Your task to perform on an android device: Go to ESPN.com Image 0: 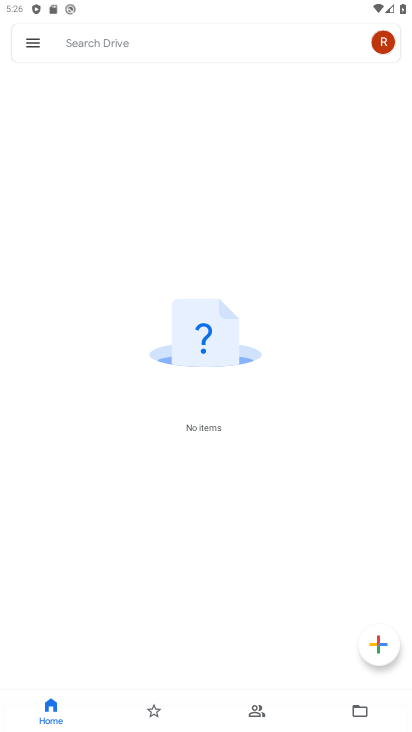
Step 0: press home button
Your task to perform on an android device: Go to ESPN.com Image 1: 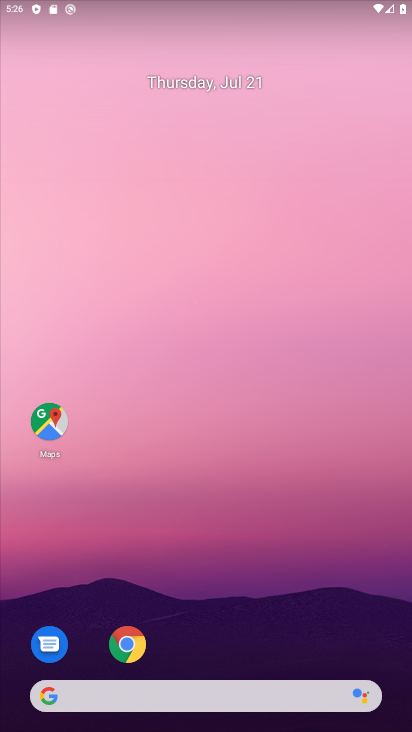
Step 1: click (194, 689)
Your task to perform on an android device: Go to ESPN.com Image 2: 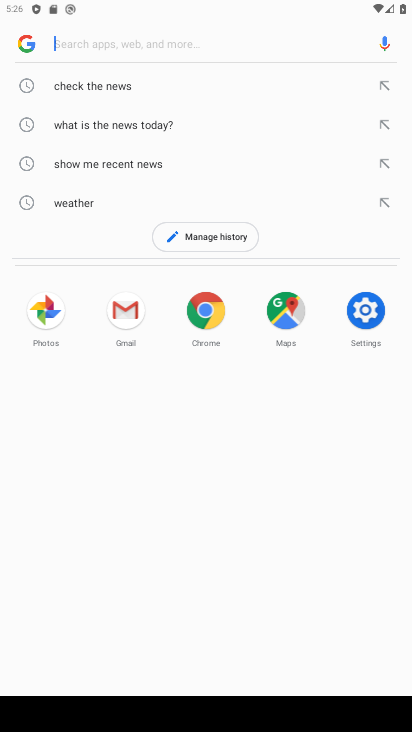
Step 2: type "ESPN.com"
Your task to perform on an android device: Go to ESPN.com Image 3: 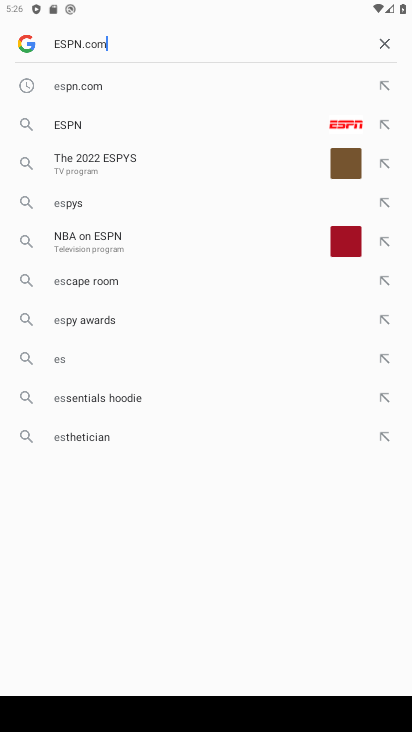
Step 3: press enter
Your task to perform on an android device: Go to ESPN.com Image 4: 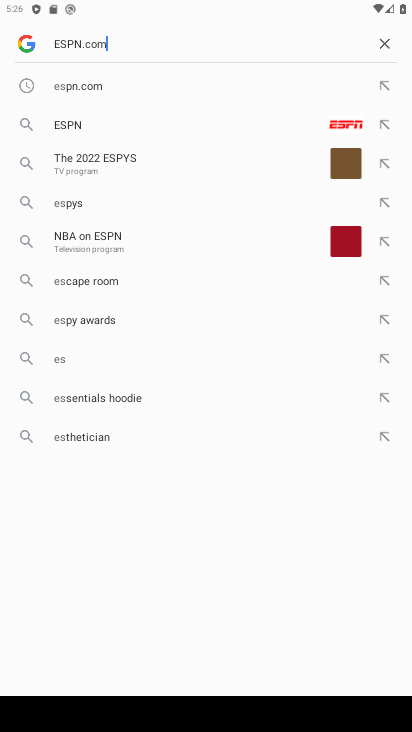
Step 4: type ""
Your task to perform on an android device: Go to ESPN.com Image 5: 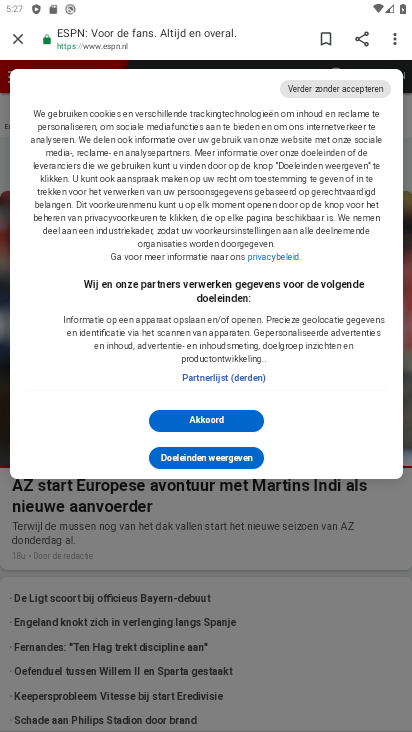
Step 5: task complete